Your task to perform on an android device: change text size in settings app Image 0: 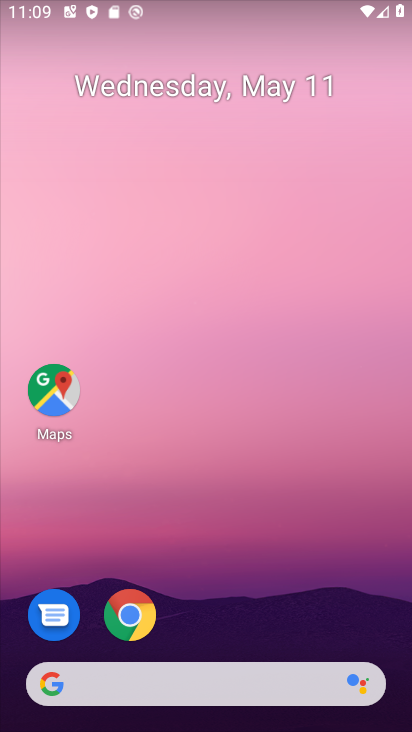
Step 0: drag from (256, 577) to (168, 43)
Your task to perform on an android device: change text size in settings app Image 1: 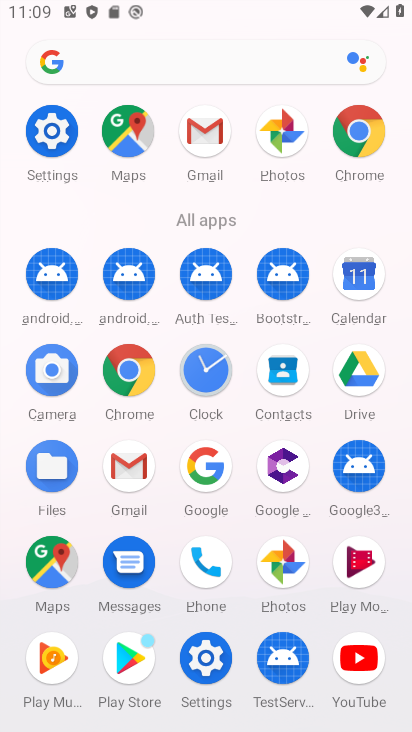
Step 1: click (49, 135)
Your task to perform on an android device: change text size in settings app Image 2: 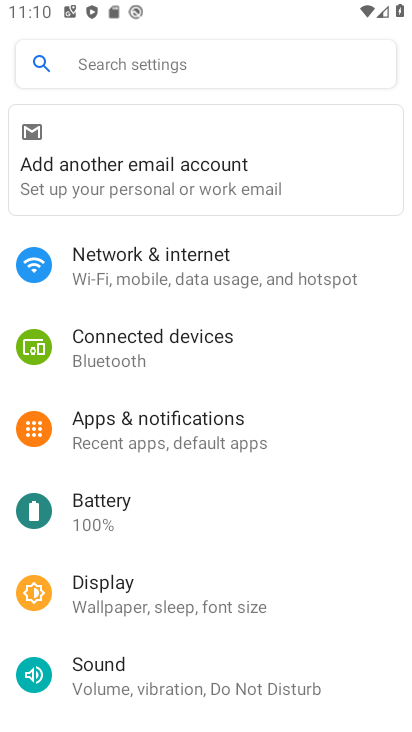
Step 2: click (117, 586)
Your task to perform on an android device: change text size in settings app Image 3: 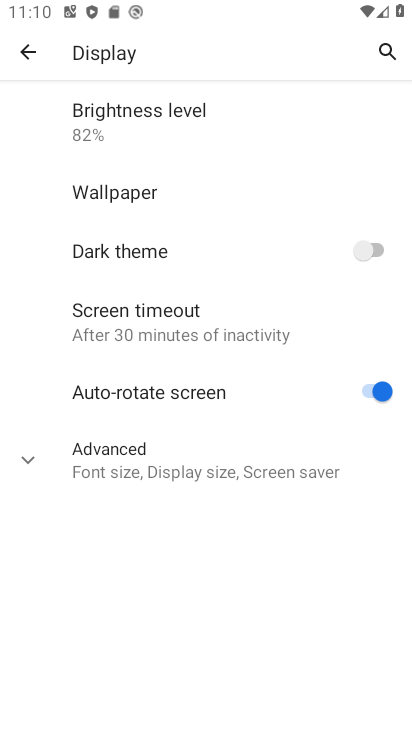
Step 3: click (100, 447)
Your task to perform on an android device: change text size in settings app Image 4: 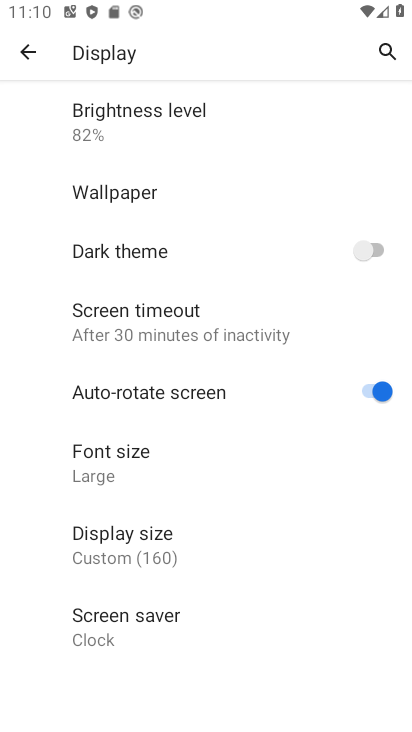
Step 4: click (102, 461)
Your task to perform on an android device: change text size in settings app Image 5: 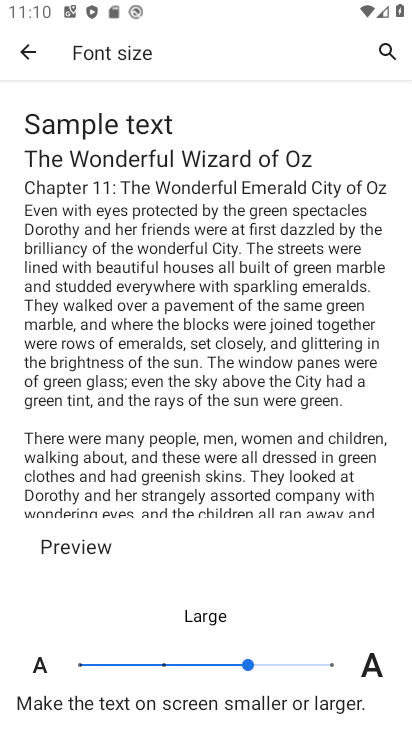
Step 5: click (187, 660)
Your task to perform on an android device: change text size in settings app Image 6: 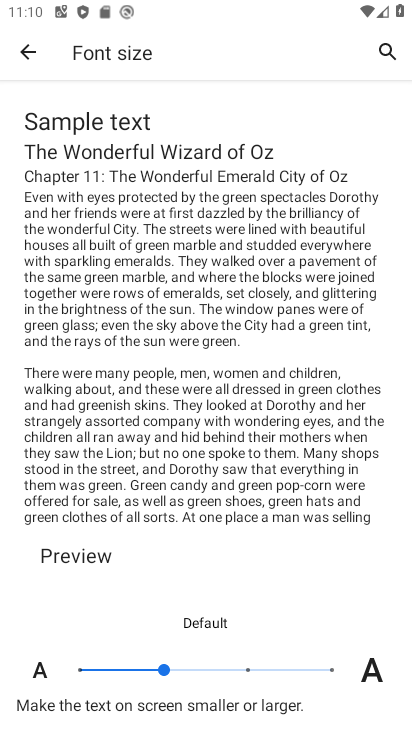
Step 6: task complete